Your task to perform on an android device: Open Google Image 0: 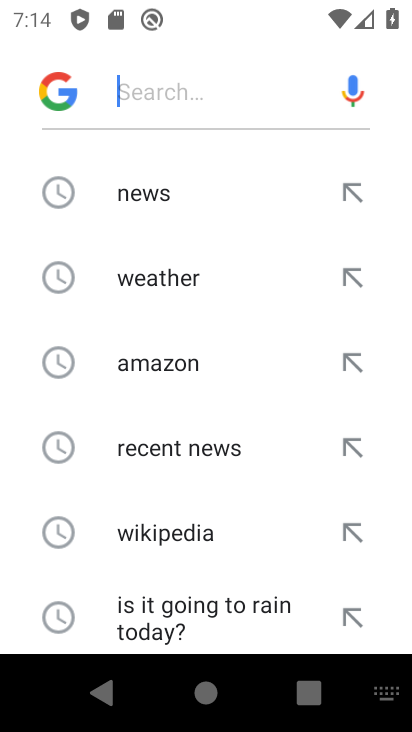
Step 0: click (64, 83)
Your task to perform on an android device: Open Google Image 1: 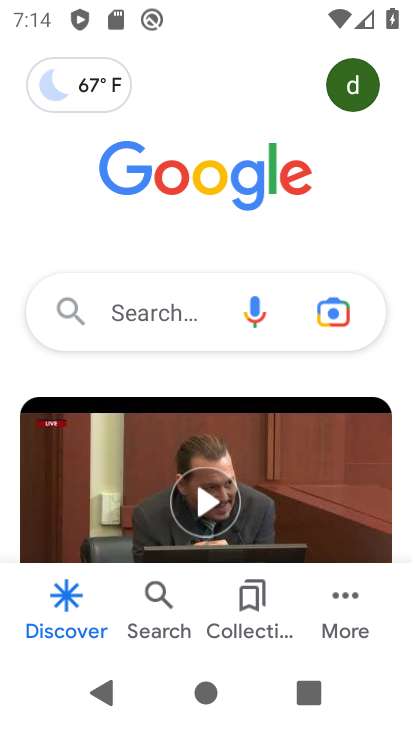
Step 1: task complete